Your task to perform on an android device: Open calendar and show me the third week of next month Image 0: 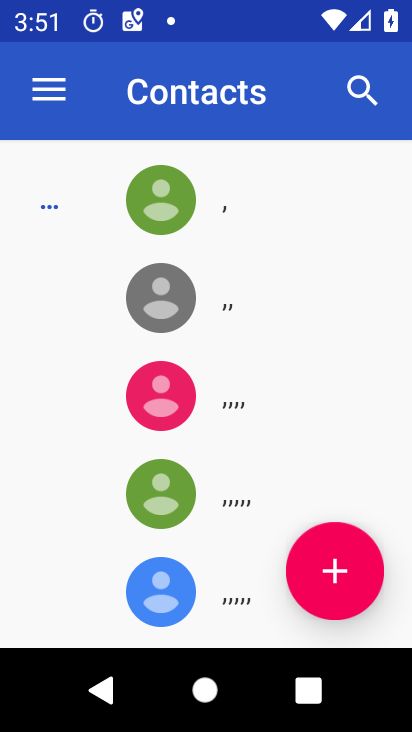
Step 0: press home button
Your task to perform on an android device: Open calendar and show me the third week of next month Image 1: 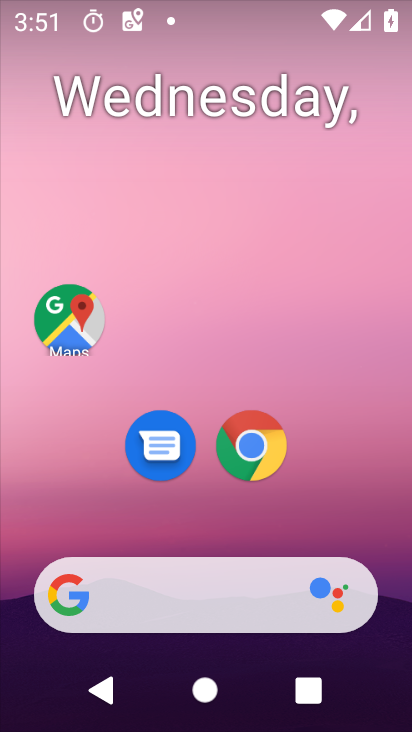
Step 1: drag from (196, 525) to (244, 131)
Your task to perform on an android device: Open calendar and show me the third week of next month Image 2: 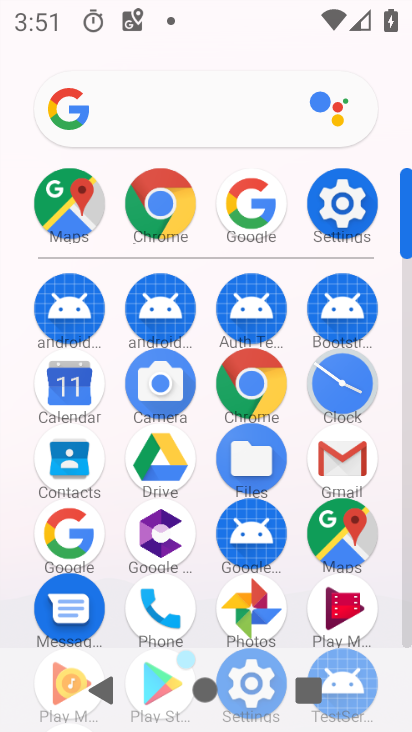
Step 2: click (72, 385)
Your task to perform on an android device: Open calendar and show me the third week of next month Image 3: 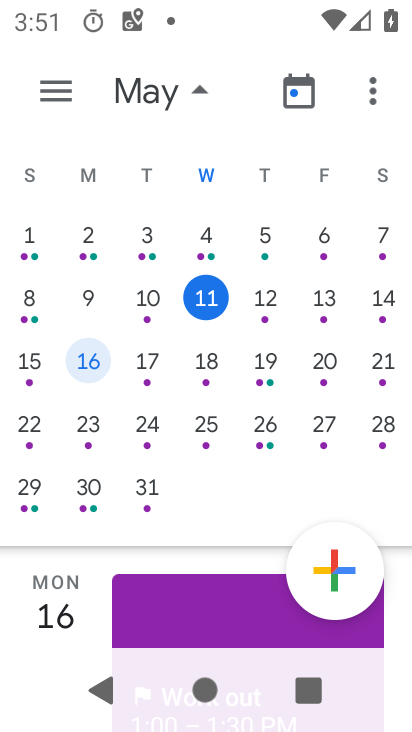
Step 3: drag from (368, 485) to (12, 406)
Your task to perform on an android device: Open calendar and show me the third week of next month Image 4: 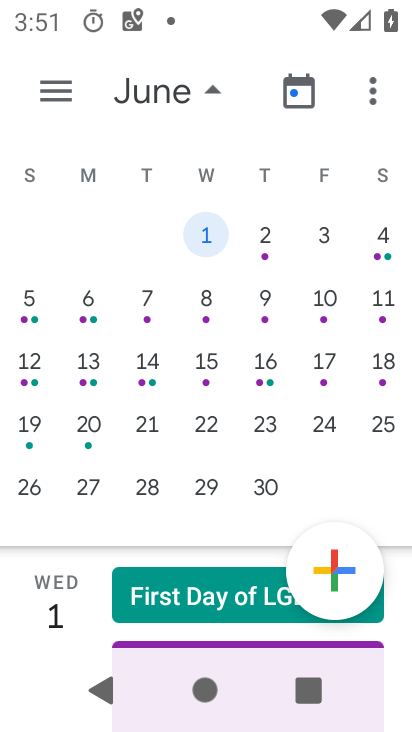
Step 4: click (220, 358)
Your task to perform on an android device: Open calendar and show me the third week of next month Image 5: 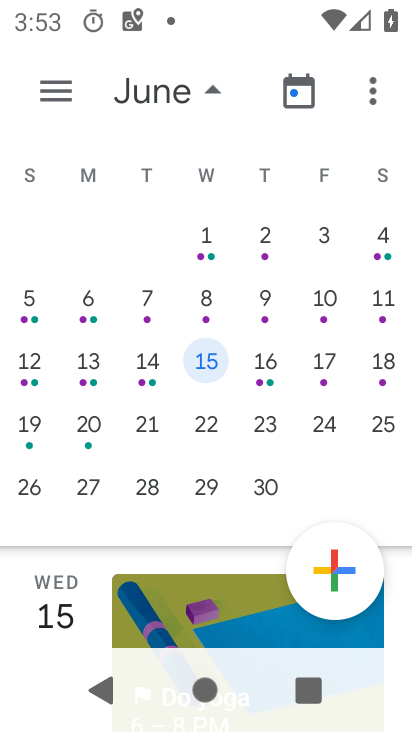
Step 5: task complete